Your task to perform on an android device: turn off improve location accuracy Image 0: 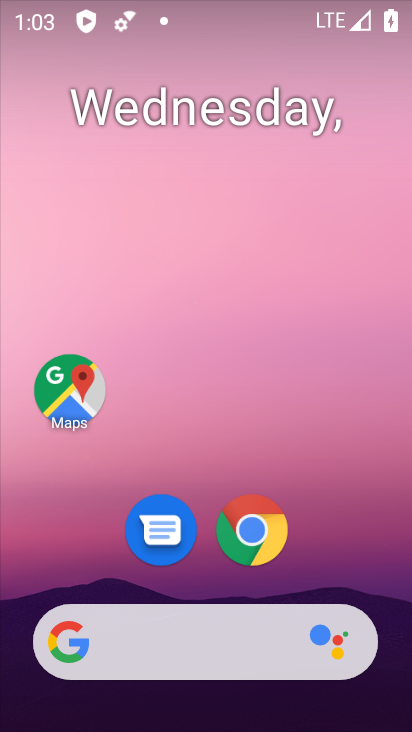
Step 0: press home button
Your task to perform on an android device: turn off improve location accuracy Image 1: 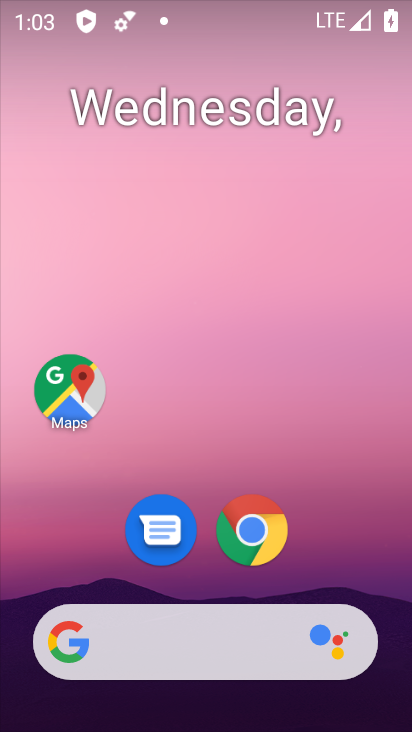
Step 1: drag from (354, 533) to (312, 105)
Your task to perform on an android device: turn off improve location accuracy Image 2: 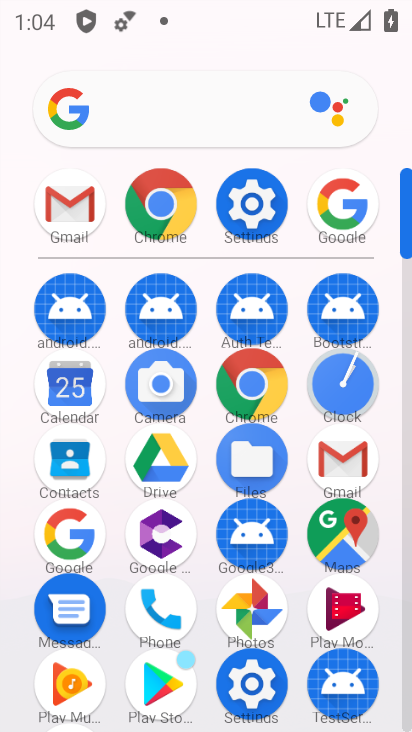
Step 2: click (279, 210)
Your task to perform on an android device: turn off improve location accuracy Image 3: 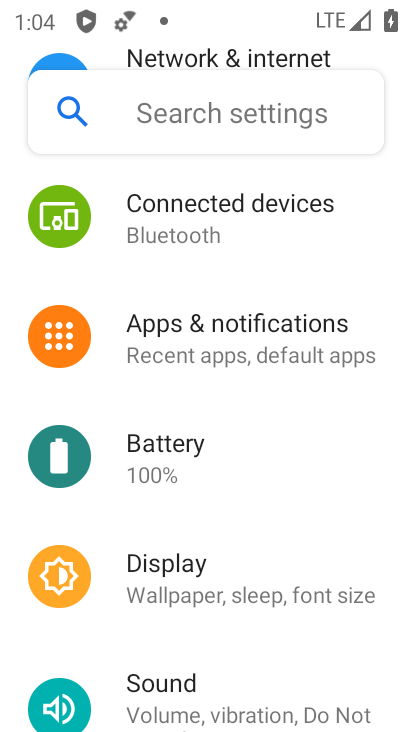
Step 3: drag from (304, 652) to (303, 302)
Your task to perform on an android device: turn off improve location accuracy Image 4: 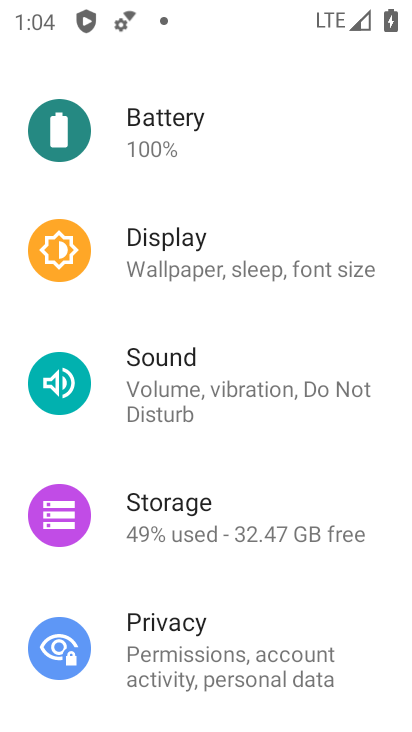
Step 4: drag from (302, 596) to (310, 214)
Your task to perform on an android device: turn off improve location accuracy Image 5: 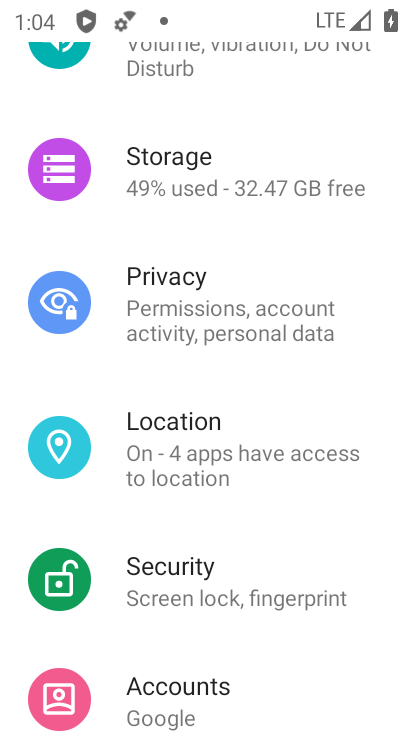
Step 5: drag from (312, 607) to (288, 232)
Your task to perform on an android device: turn off improve location accuracy Image 6: 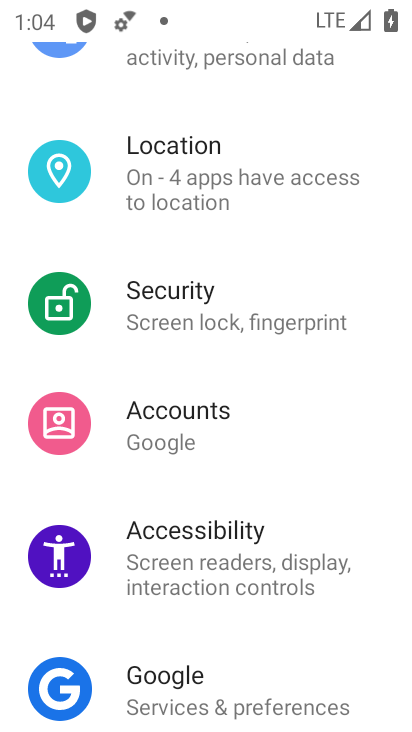
Step 6: drag from (279, 638) to (262, 239)
Your task to perform on an android device: turn off improve location accuracy Image 7: 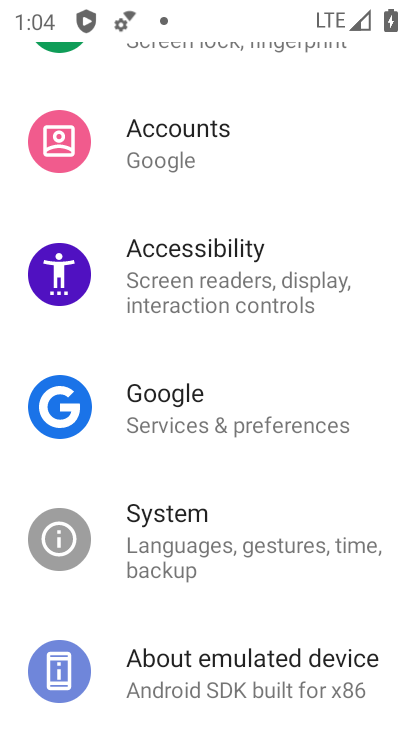
Step 7: drag from (256, 92) to (242, 595)
Your task to perform on an android device: turn off improve location accuracy Image 8: 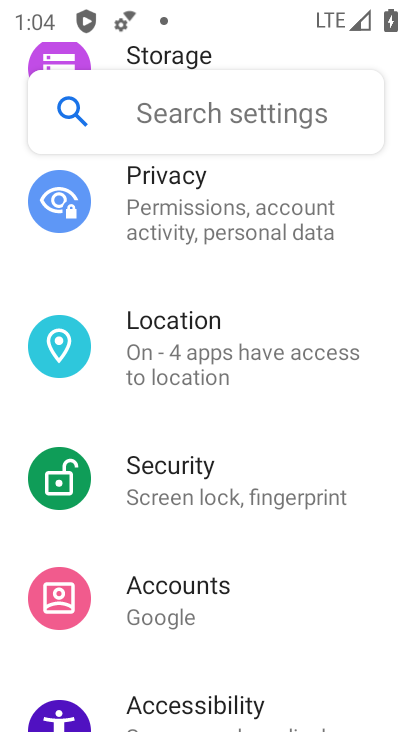
Step 8: drag from (226, 184) to (224, 653)
Your task to perform on an android device: turn off improve location accuracy Image 9: 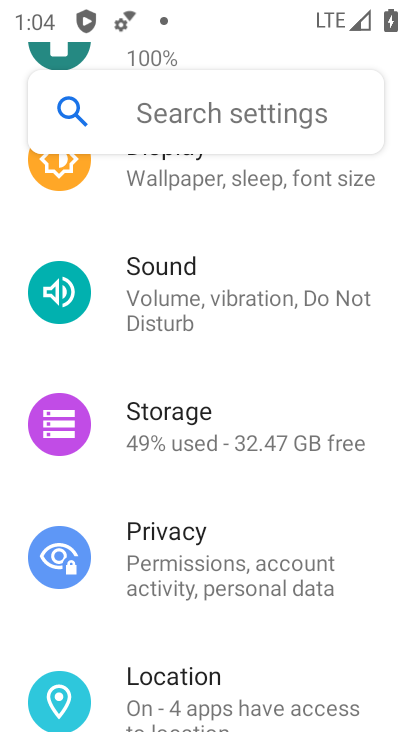
Step 9: click (156, 687)
Your task to perform on an android device: turn off improve location accuracy Image 10: 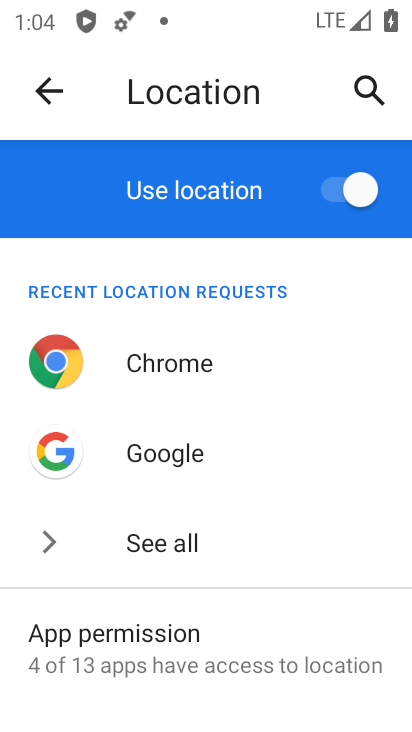
Step 10: drag from (296, 669) to (303, 375)
Your task to perform on an android device: turn off improve location accuracy Image 11: 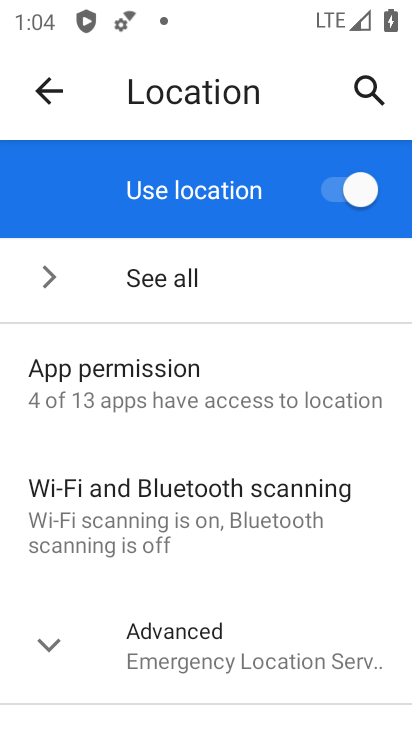
Step 11: click (267, 664)
Your task to perform on an android device: turn off improve location accuracy Image 12: 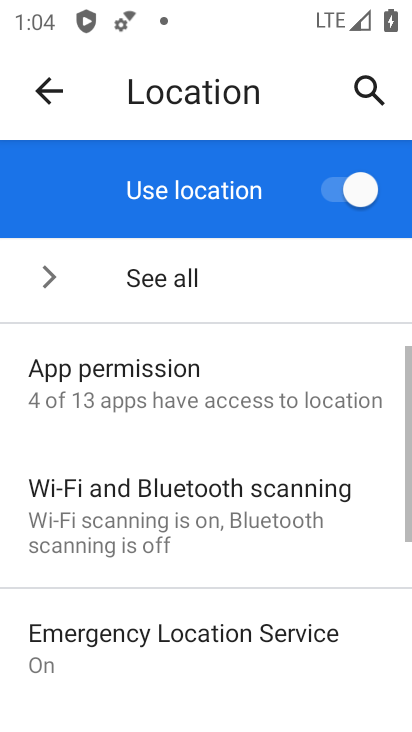
Step 12: drag from (168, 669) to (175, 354)
Your task to perform on an android device: turn off improve location accuracy Image 13: 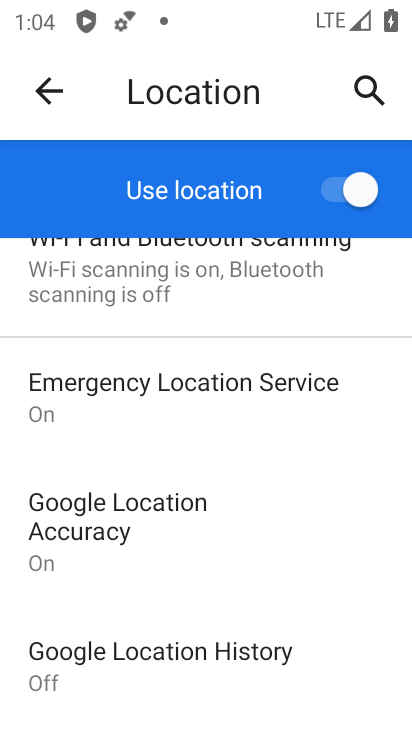
Step 13: click (184, 519)
Your task to perform on an android device: turn off improve location accuracy Image 14: 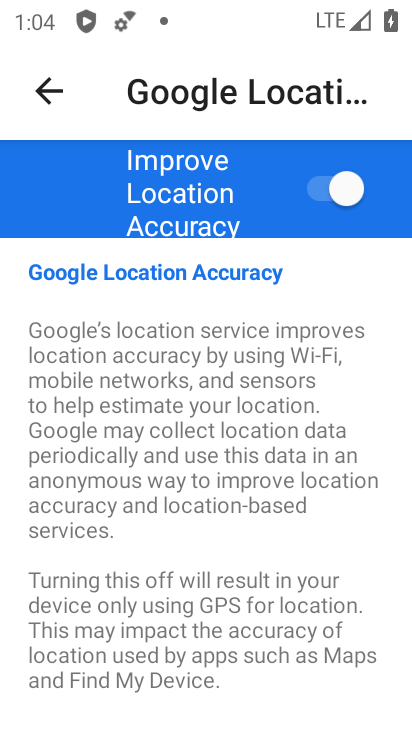
Step 14: click (315, 190)
Your task to perform on an android device: turn off improve location accuracy Image 15: 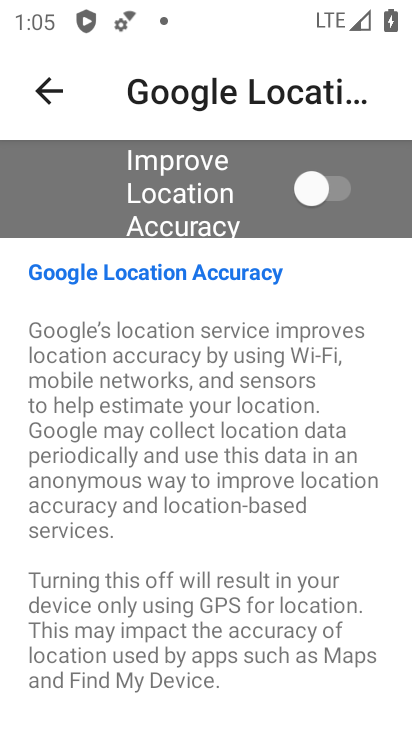
Step 15: task complete